Your task to perform on an android device: Open the web browser Image 0: 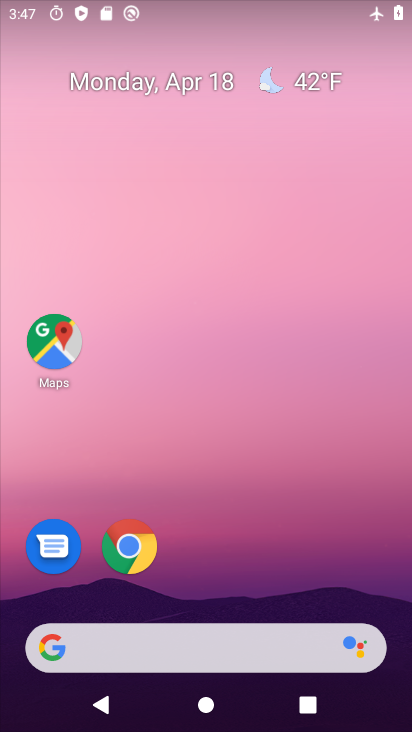
Step 0: drag from (228, 209) to (189, 108)
Your task to perform on an android device: Open the web browser Image 1: 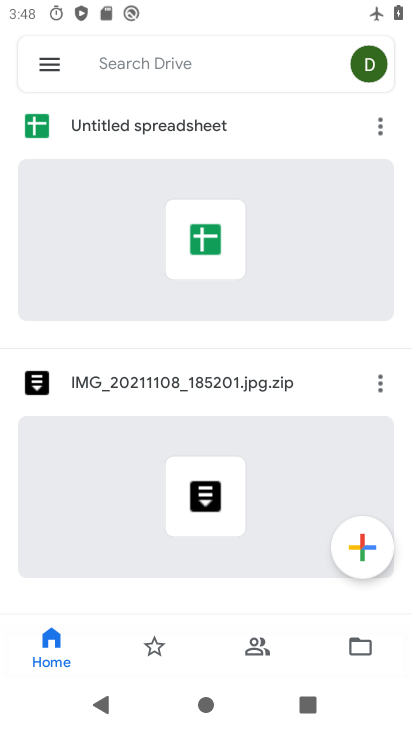
Step 1: press home button
Your task to perform on an android device: Open the web browser Image 2: 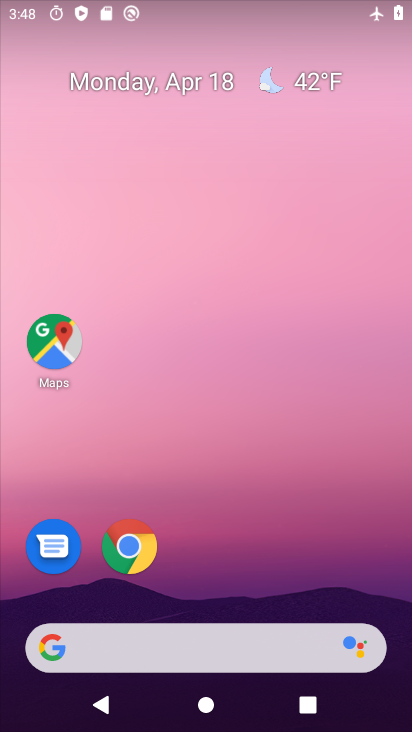
Step 2: click (120, 544)
Your task to perform on an android device: Open the web browser Image 3: 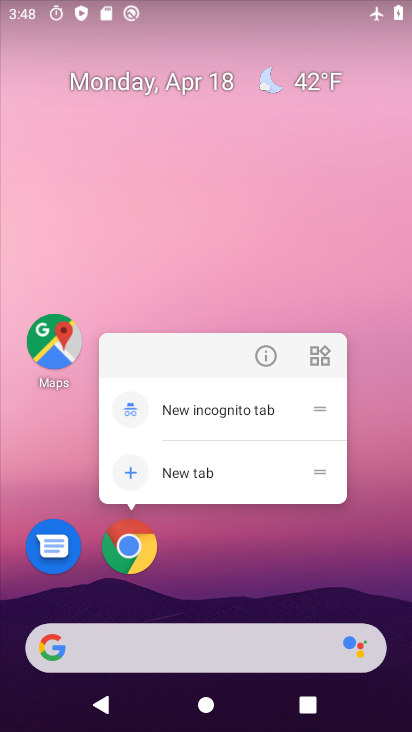
Step 3: drag from (279, 554) to (266, 78)
Your task to perform on an android device: Open the web browser Image 4: 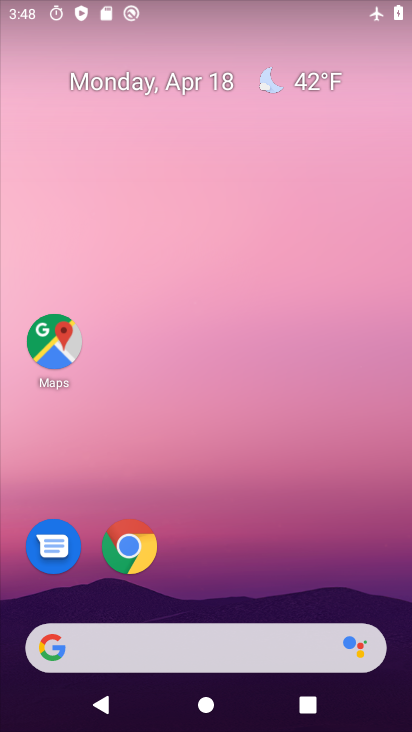
Step 4: drag from (233, 582) to (282, 226)
Your task to perform on an android device: Open the web browser Image 5: 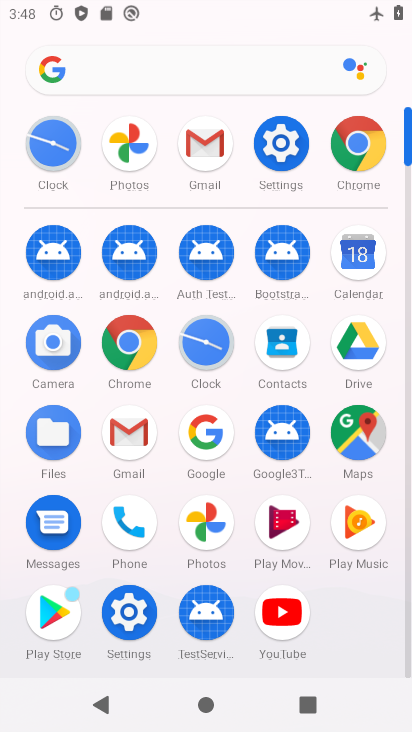
Step 5: click (128, 349)
Your task to perform on an android device: Open the web browser Image 6: 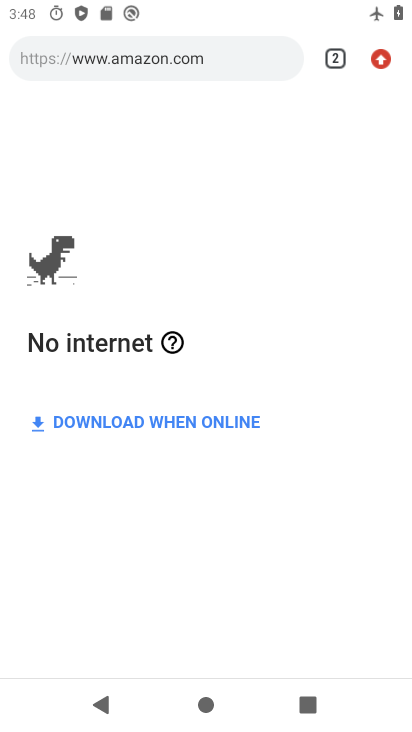
Step 6: task complete